Your task to perform on an android device: refresh tabs in the chrome app Image 0: 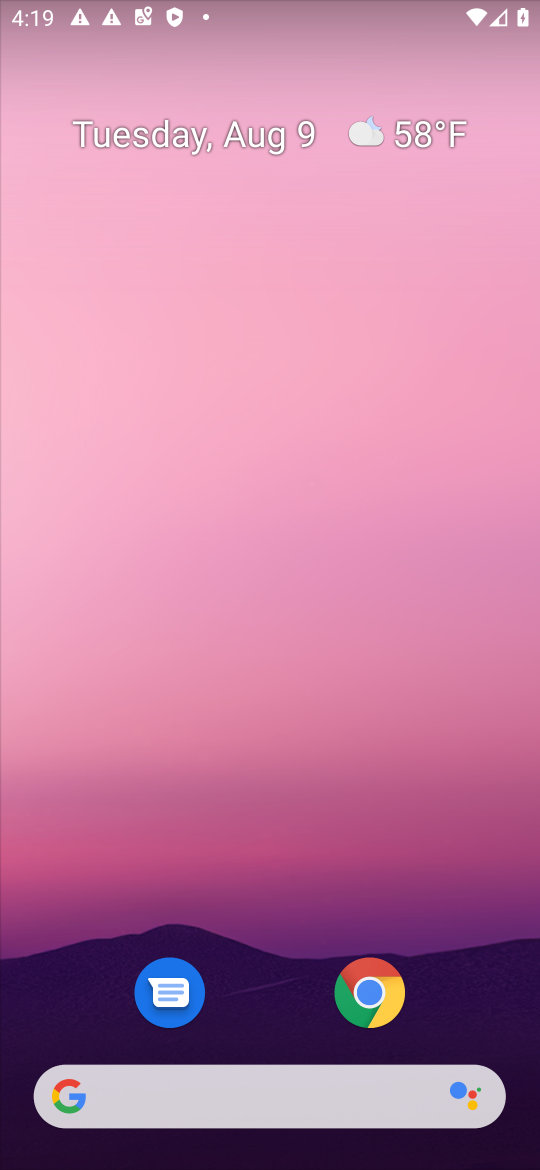
Step 0: drag from (156, 1119) to (156, 233)
Your task to perform on an android device: refresh tabs in the chrome app Image 1: 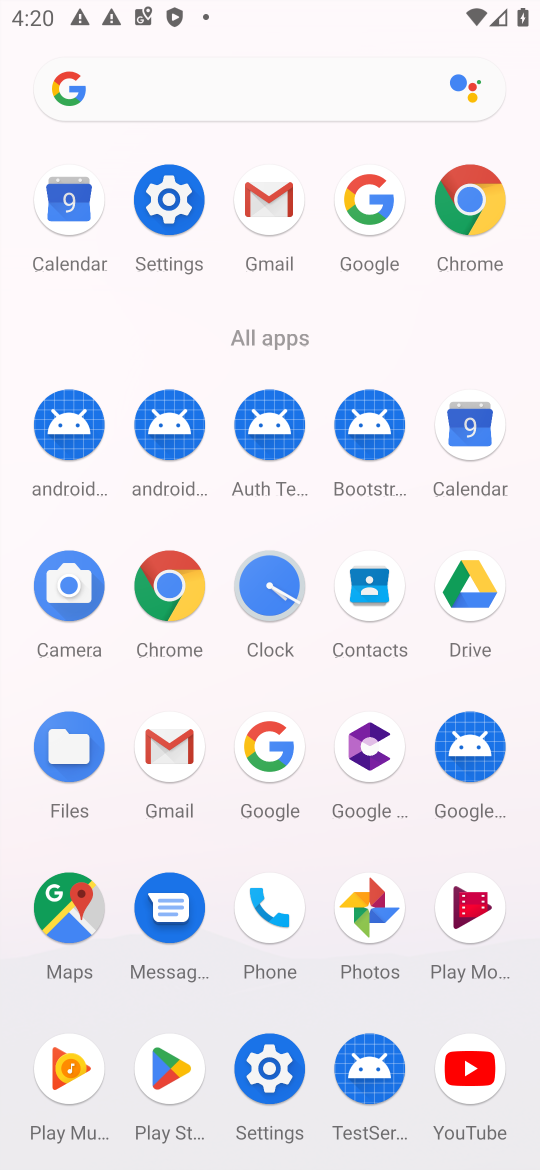
Step 1: click (154, 587)
Your task to perform on an android device: refresh tabs in the chrome app Image 2: 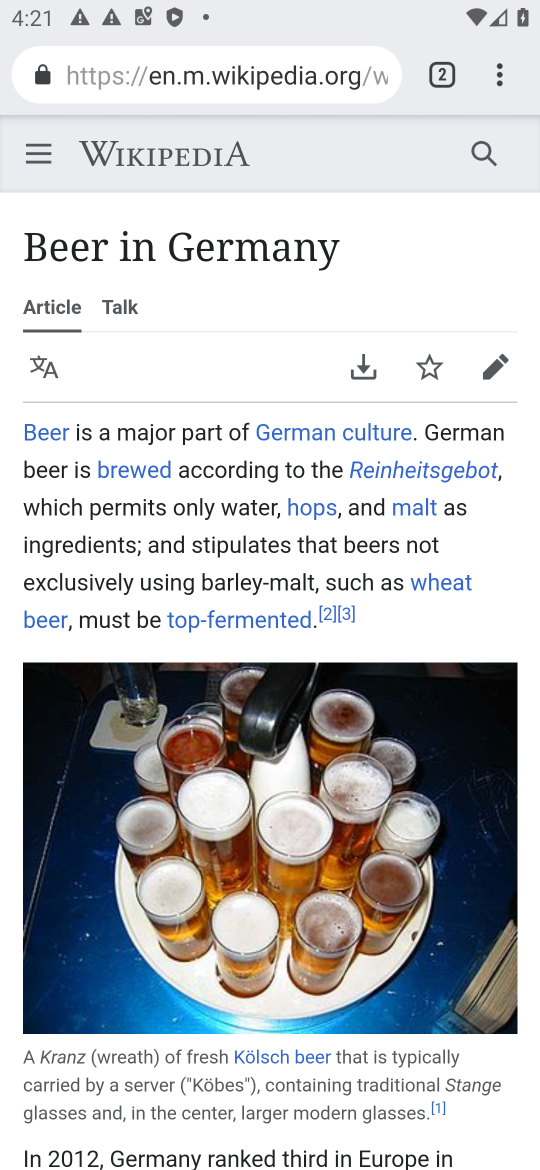
Step 2: click (496, 71)
Your task to perform on an android device: refresh tabs in the chrome app Image 3: 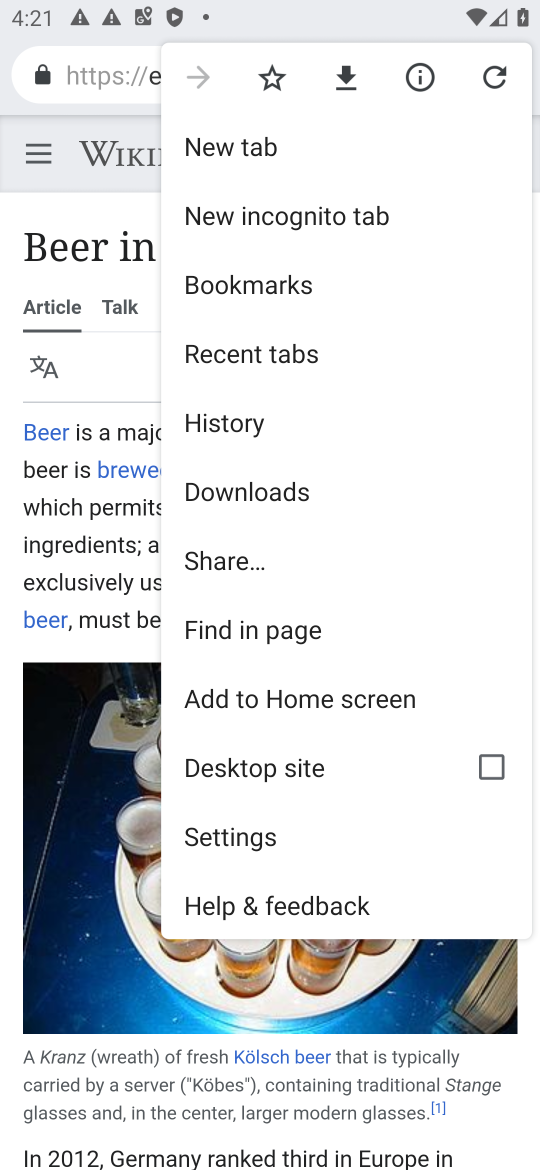
Step 3: click (504, 69)
Your task to perform on an android device: refresh tabs in the chrome app Image 4: 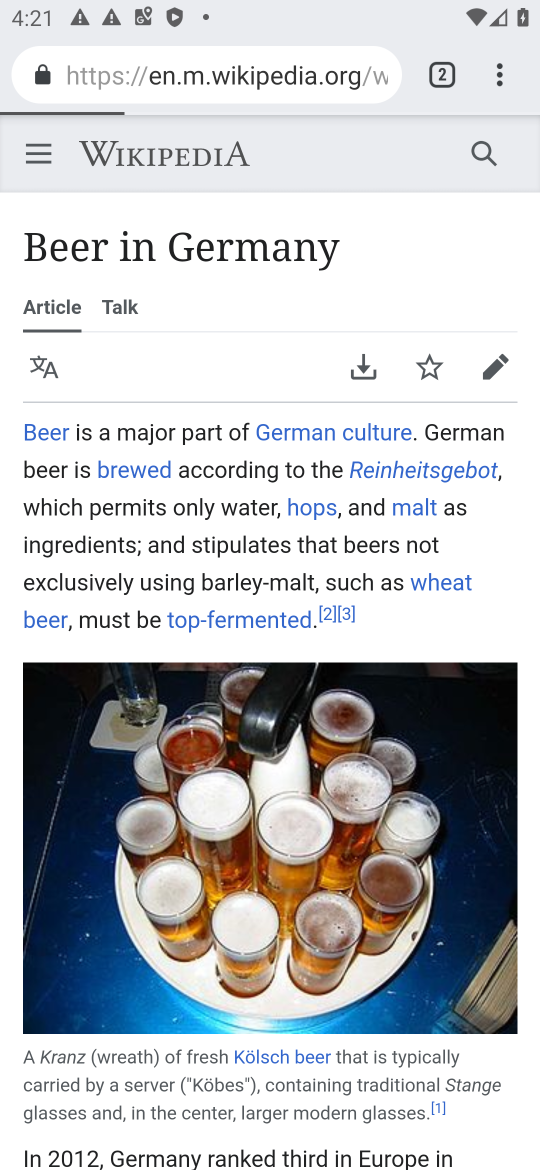
Step 4: task complete